Your task to perform on an android device: check the backup settings in the google photos Image 0: 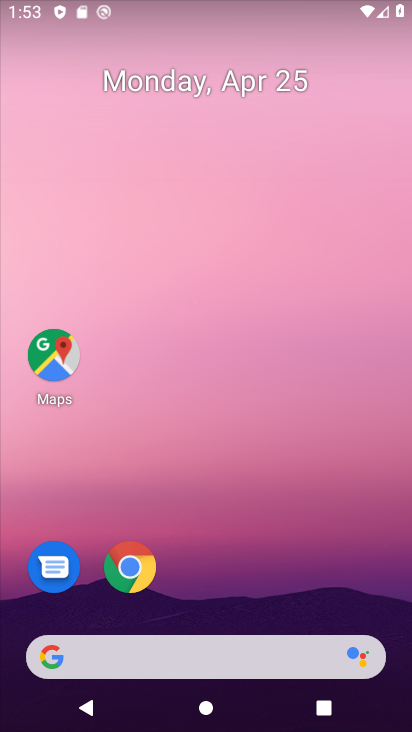
Step 0: drag from (207, 607) to (241, 84)
Your task to perform on an android device: check the backup settings in the google photos Image 1: 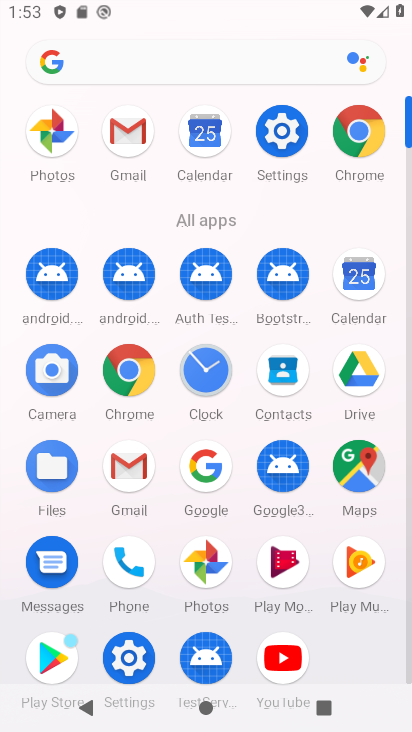
Step 1: click (56, 137)
Your task to perform on an android device: check the backup settings in the google photos Image 2: 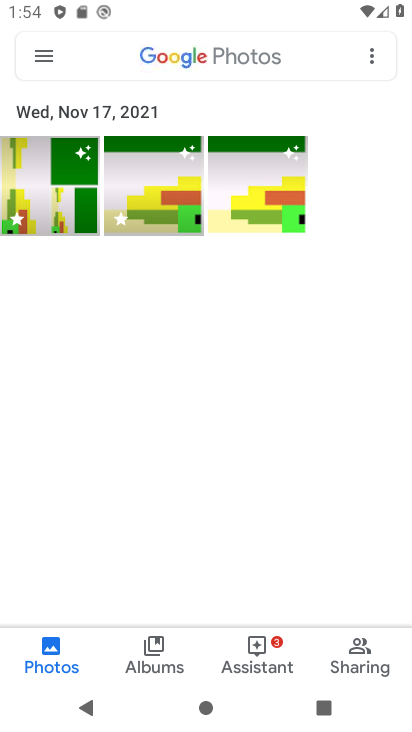
Step 2: click (55, 69)
Your task to perform on an android device: check the backup settings in the google photos Image 3: 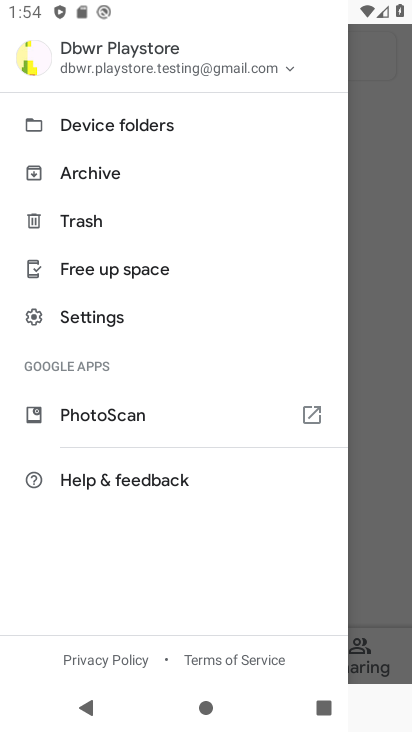
Step 3: click (131, 324)
Your task to perform on an android device: check the backup settings in the google photos Image 4: 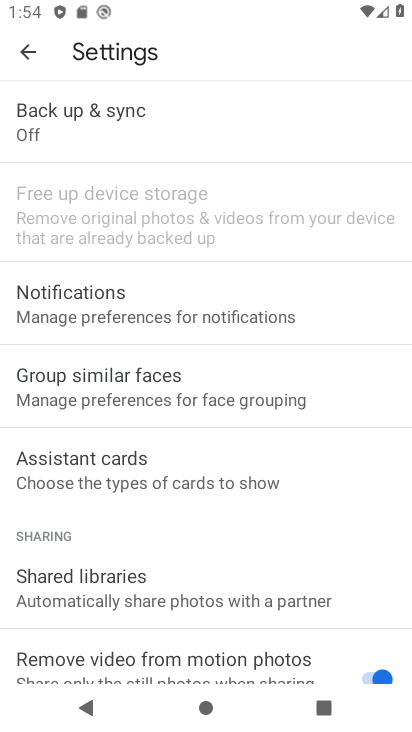
Step 4: click (205, 115)
Your task to perform on an android device: check the backup settings in the google photos Image 5: 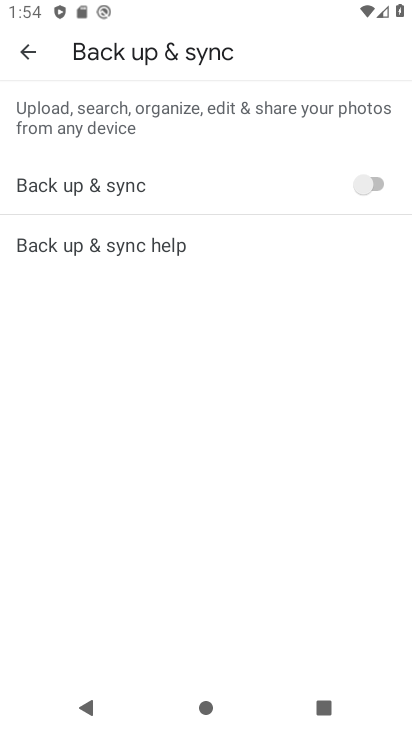
Step 5: click (411, 182)
Your task to perform on an android device: check the backup settings in the google photos Image 6: 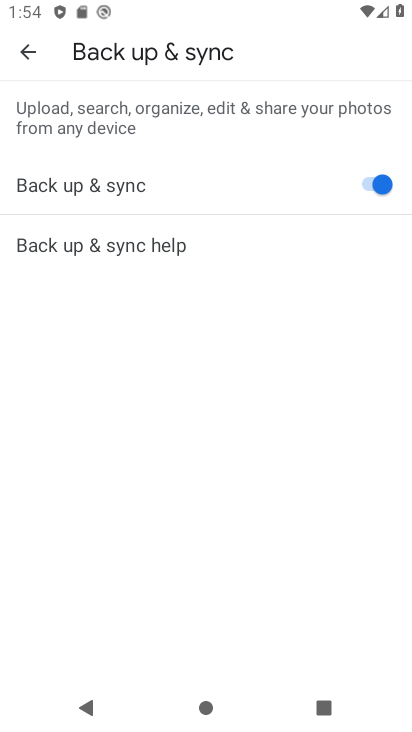
Step 6: click (394, 183)
Your task to perform on an android device: check the backup settings in the google photos Image 7: 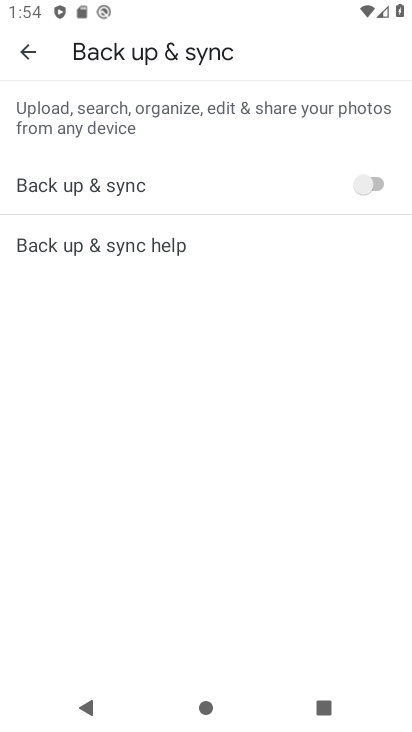
Step 7: click (394, 183)
Your task to perform on an android device: check the backup settings in the google photos Image 8: 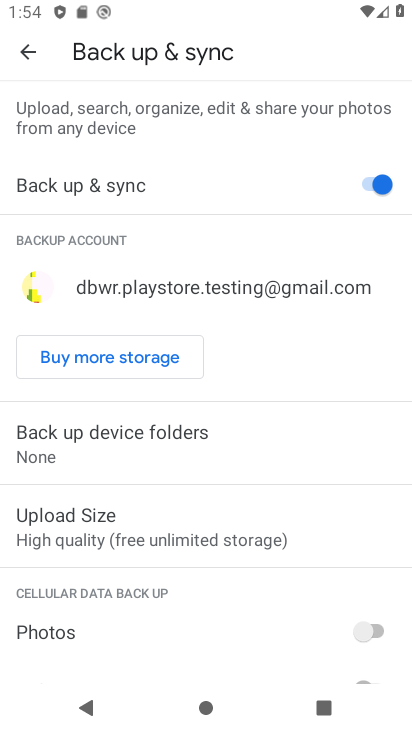
Step 8: task complete